Your task to perform on an android device: turn smart compose on in the gmail app Image 0: 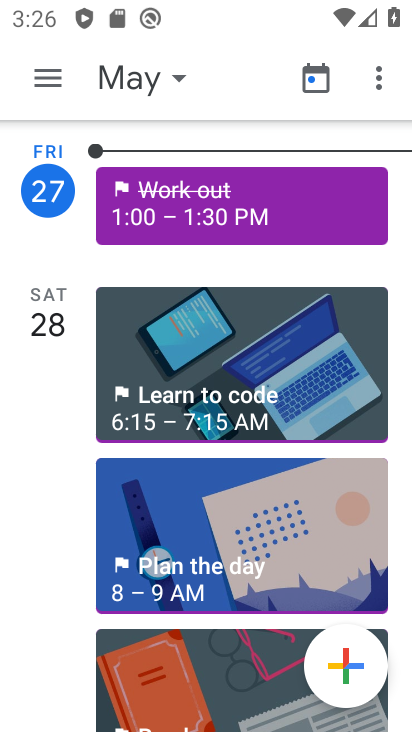
Step 0: press home button
Your task to perform on an android device: turn smart compose on in the gmail app Image 1: 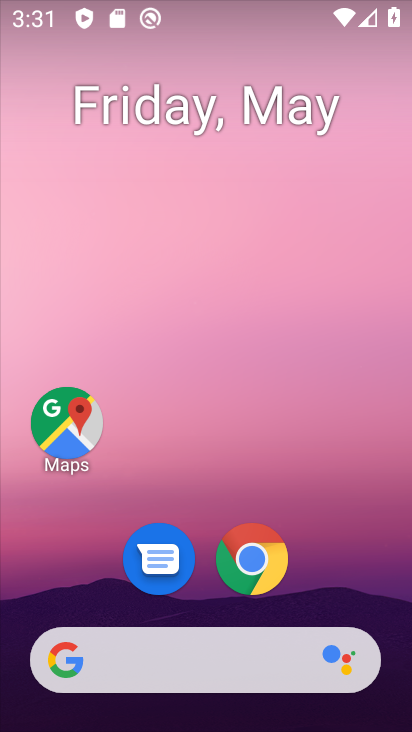
Step 1: drag from (332, 571) to (410, 25)
Your task to perform on an android device: turn smart compose on in the gmail app Image 2: 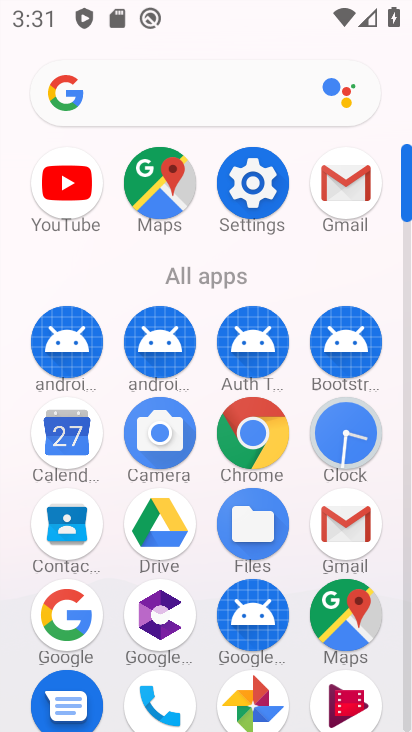
Step 2: click (350, 187)
Your task to perform on an android device: turn smart compose on in the gmail app Image 3: 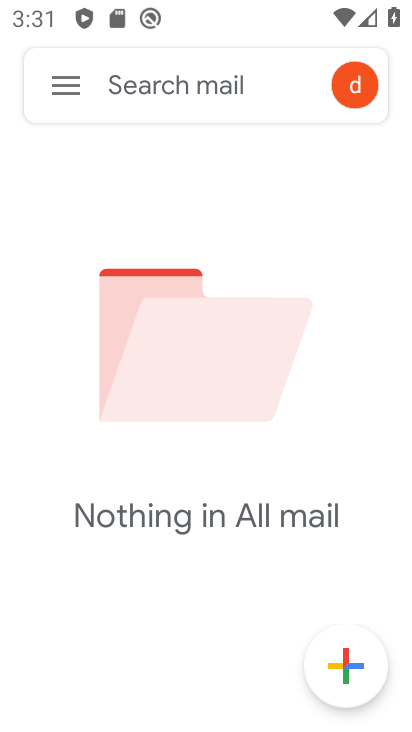
Step 3: click (41, 79)
Your task to perform on an android device: turn smart compose on in the gmail app Image 4: 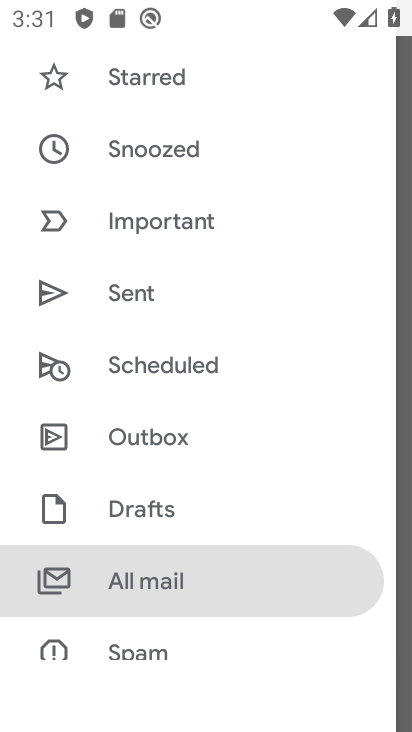
Step 4: drag from (168, 593) to (228, 238)
Your task to perform on an android device: turn smart compose on in the gmail app Image 5: 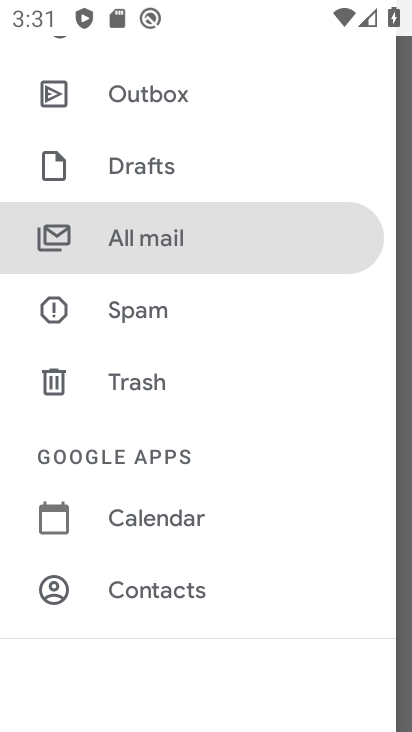
Step 5: drag from (206, 535) to (215, 135)
Your task to perform on an android device: turn smart compose on in the gmail app Image 6: 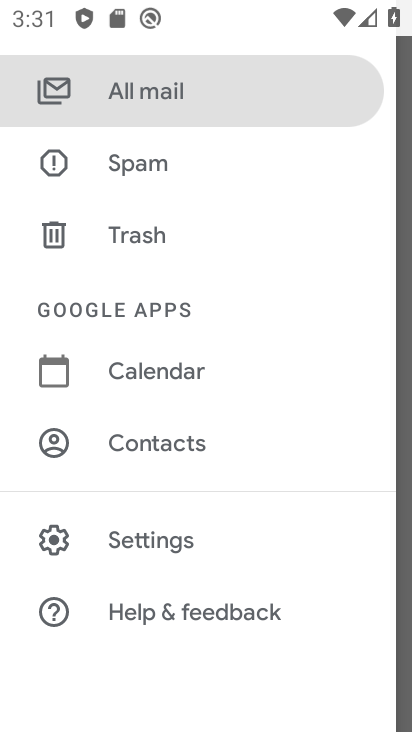
Step 6: click (201, 543)
Your task to perform on an android device: turn smart compose on in the gmail app Image 7: 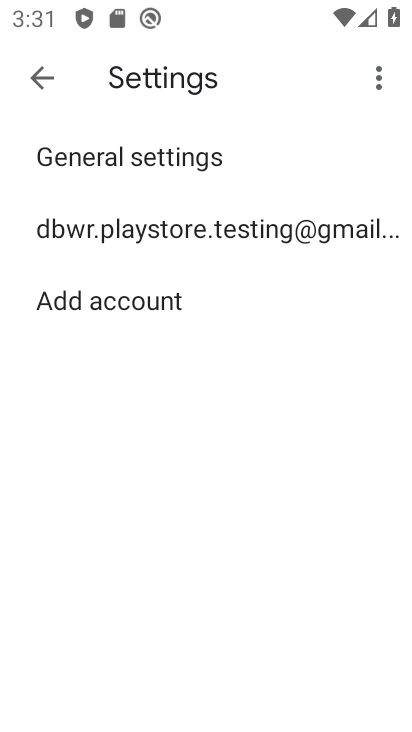
Step 7: click (207, 154)
Your task to perform on an android device: turn smart compose on in the gmail app Image 8: 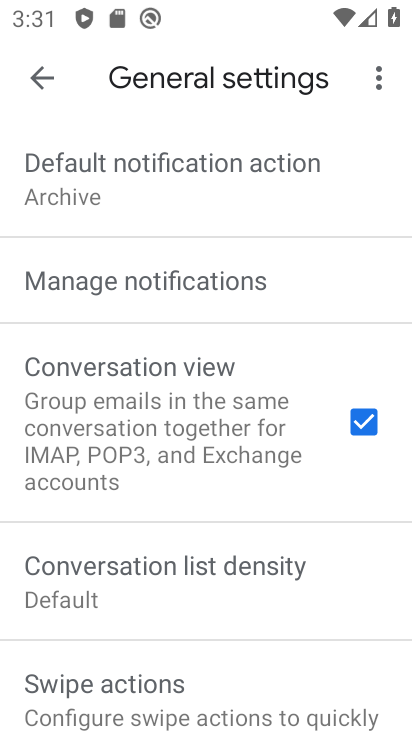
Step 8: drag from (216, 571) to (160, 160)
Your task to perform on an android device: turn smart compose on in the gmail app Image 9: 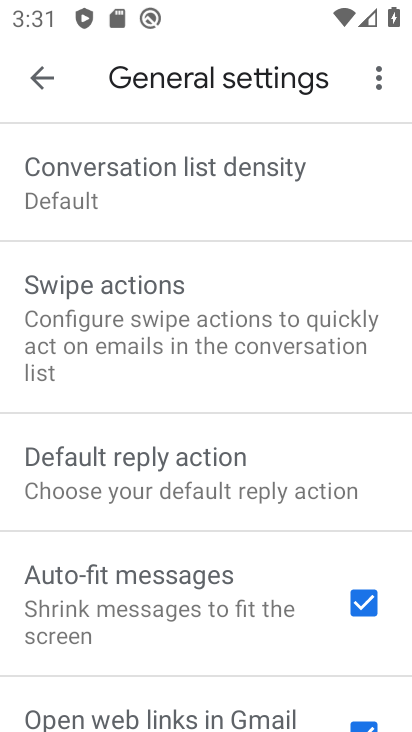
Step 9: drag from (152, 588) to (160, 271)
Your task to perform on an android device: turn smart compose on in the gmail app Image 10: 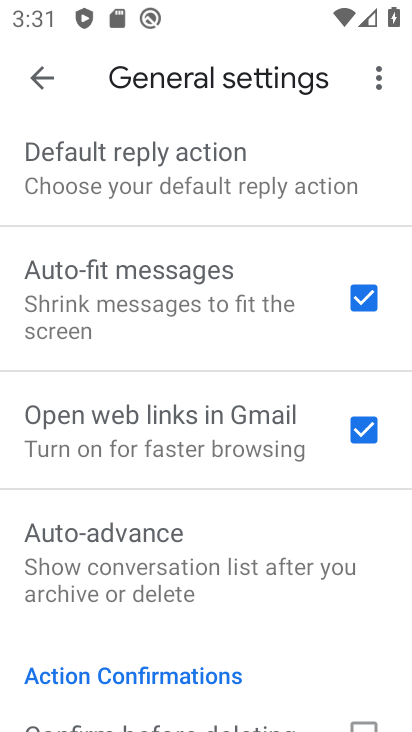
Step 10: drag from (170, 581) to (157, 181)
Your task to perform on an android device: turn smart compose on in the gmail app Image 11: 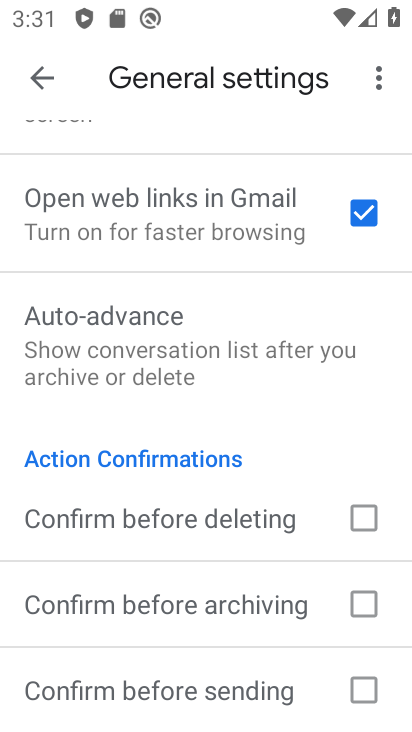
Step 11: drag from (190, 581) to (184, 167)
Your task to perform on an android device: turn smart compose on in the gmail app Image 12: 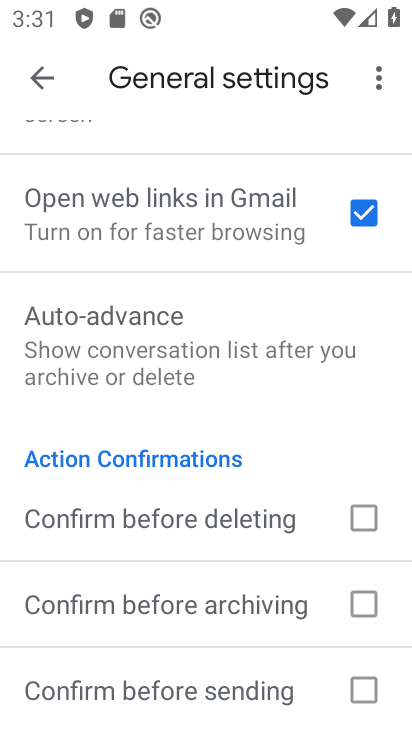
Step 12: drag from (205, 609) to (192, 244)
Your task to perform on an android device: turn smart compose on in the gmail app Image 13: 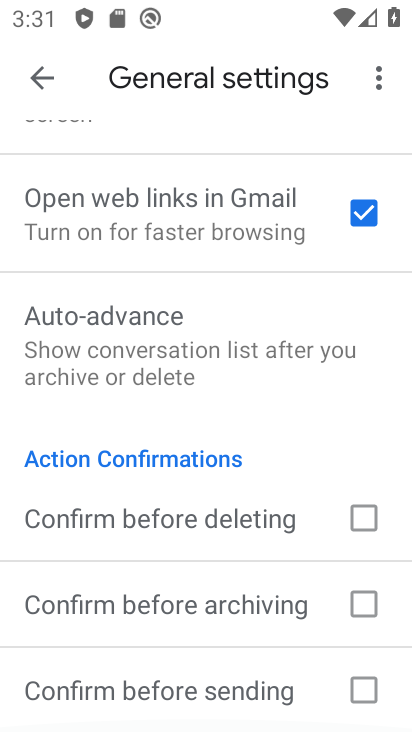
Step 13: drag from (224, 330) to (211, 695)
Your task to perform on an android device: turn smart compose on in the gmail app Image 14: 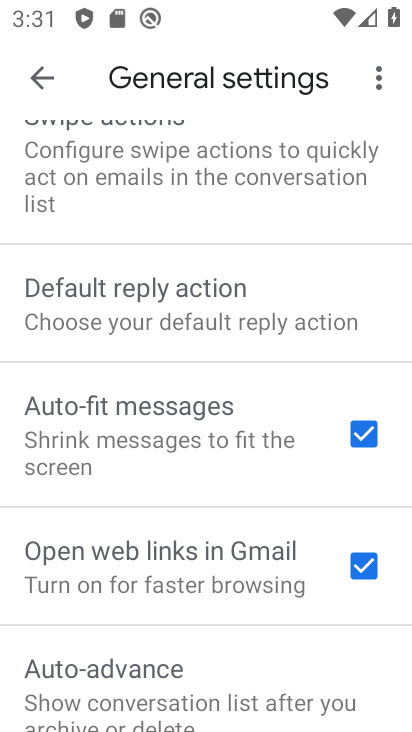
Step 14: drag from (193, 249) to (186, 646)
Your task to perform on an android device: turn smart compose on in the gmail app Image 15: 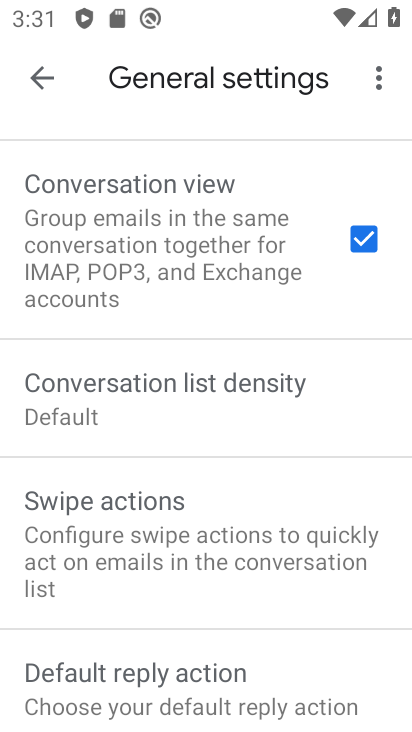
Step 15: drag from (175, 296) to (165, 686)
Your task to perform on an android device: turn smart compose on in the gmail app Image 16: 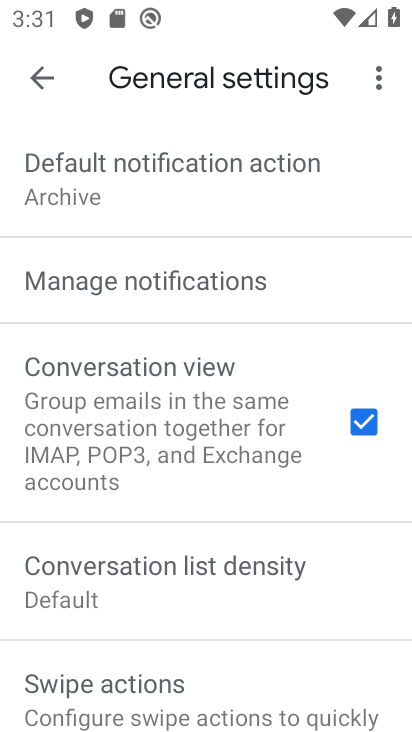
Step 16: drag from (149, 166) to (176, 625)
Your task to perform on an android device: turn smart compose on in the gmail app Image 17: 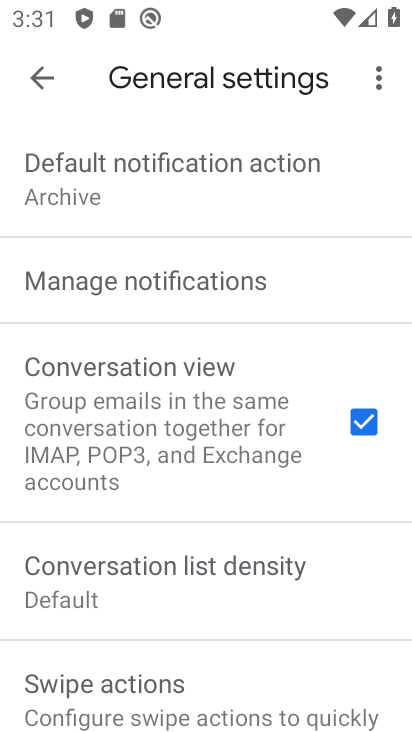
Step 17: click (382, 69)
Your task to perform on an android device: turn smart compose on in the gmail app Image 18: 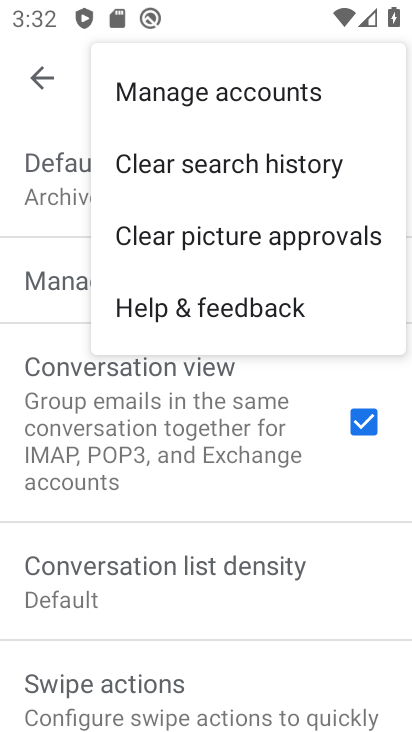
Step 18: click (45, 71)
Your task to perform on an android device: turn smart compose on in the gmail app Image 19: 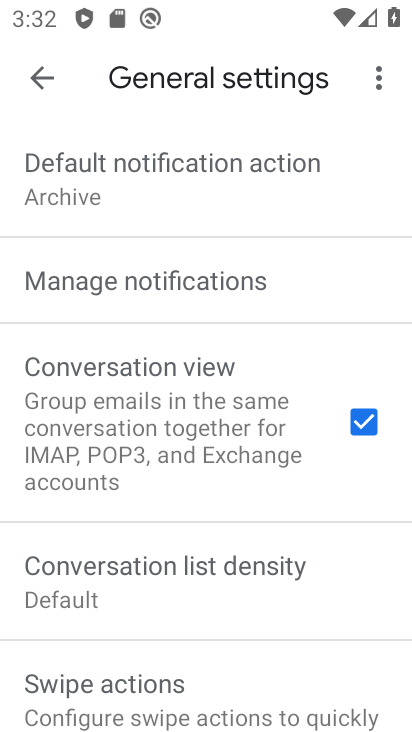
Step 19: click (45, 71)
Your task to perform on an android device: turn smart compose on in the gmail app Image 20: 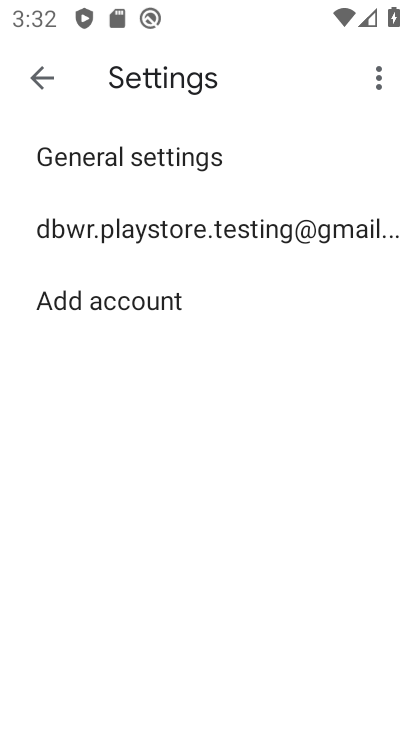
Step 20: click (160, 185)
Your task to perform on an android device: turn smart compose on in the gmail app Image 21: 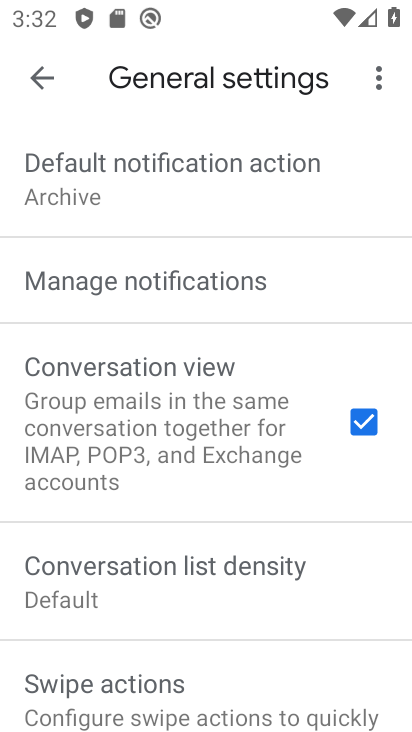
Step 21: task complete